Your task to perform on an android device: create a new album in the google photos Image 0: 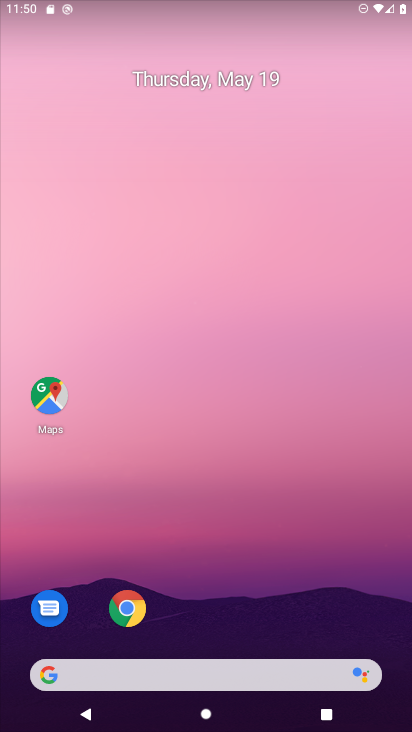
Step 0: press home button
Your task to perform on an android device: create a new album in the google photos Image 1: 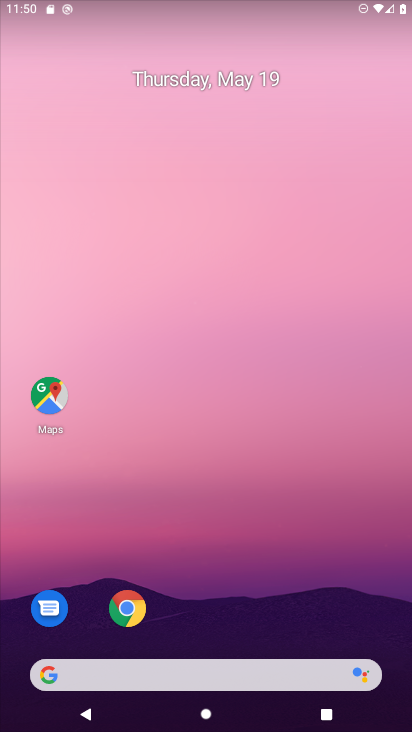
Step 1: drag from (289, 576) to (260, 38)
Your task to perform on an android device: create a new album in the google photos Image 2: 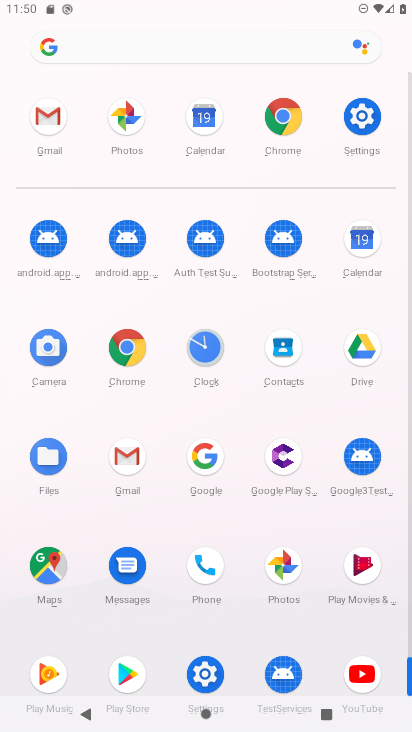
Step 2: click (288, 570)
Your task to perform on an android device: create a new album in the google photos Image 3: 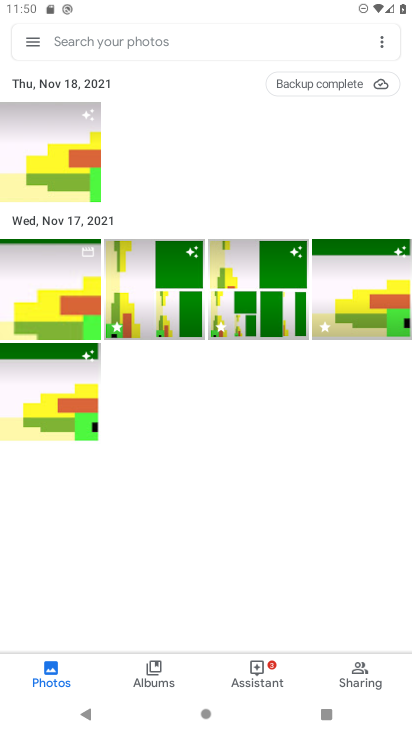
Step 3: click (66, 147)
Your task to perform on an android device: create a new album in the google photos Image 4: 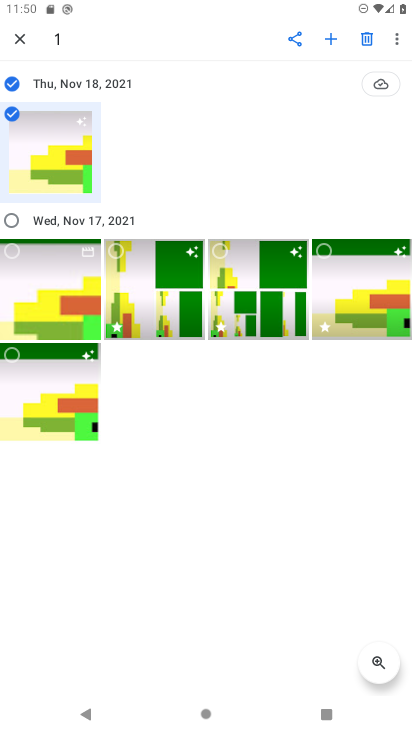
Step 4: click (90, 327)
Your task to perform on an android device: create a new album in the google photos Image 5: 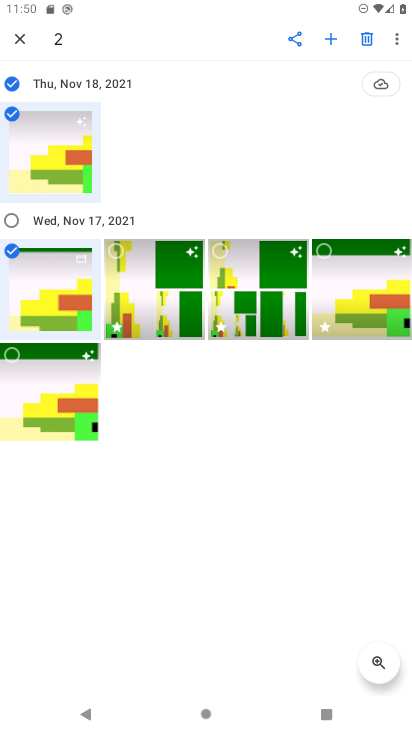
Step 5: click (190, 322)
Your task to perform on an android device: create a new album in the google photos Image 6: 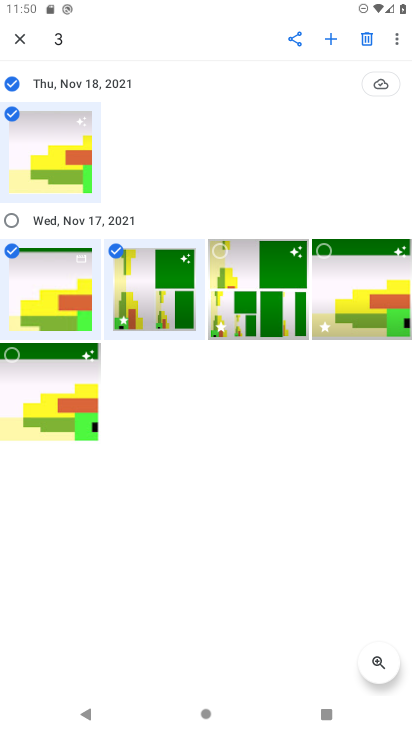
Step 6: click (320, 43)
Your task to perform on an android device: create a new album in the google photos Image 7: 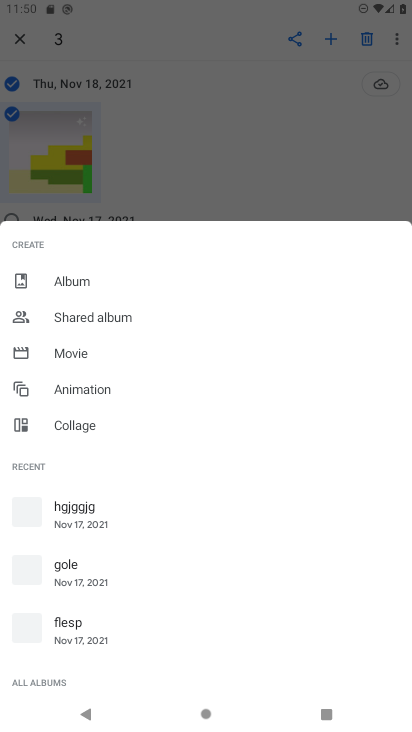
Step 7: click (112, 283)
Your task to perform on an android device: create a new album in the google photos Image 8: 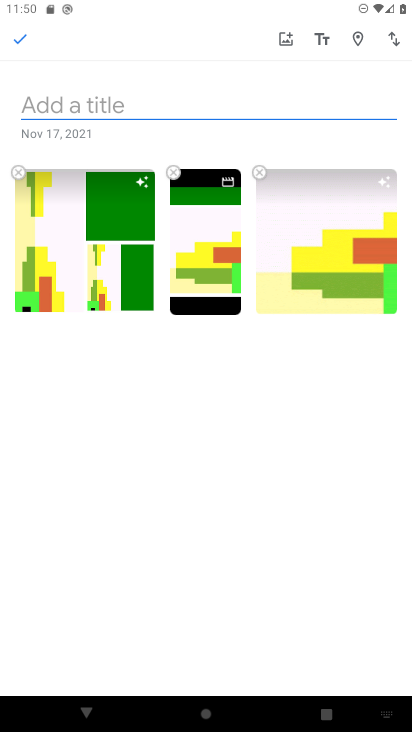
Step 8: type "fh"
Your task to perform on an android device: create a new album in the google photos Image 9: 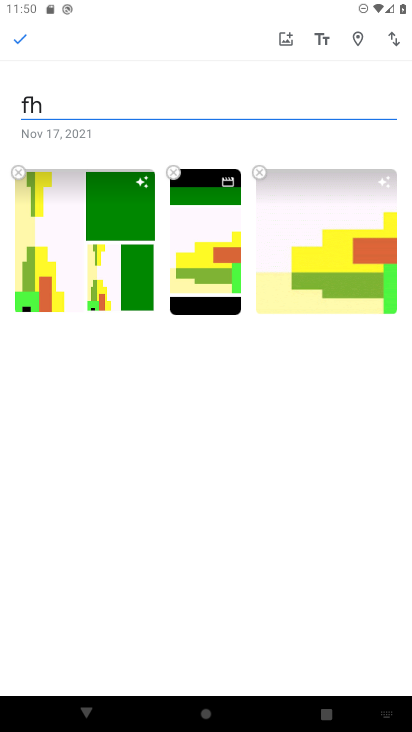
Step 9: click (20, 32)
Your task to perform on an android device: create a new album in the google photos Image 10: 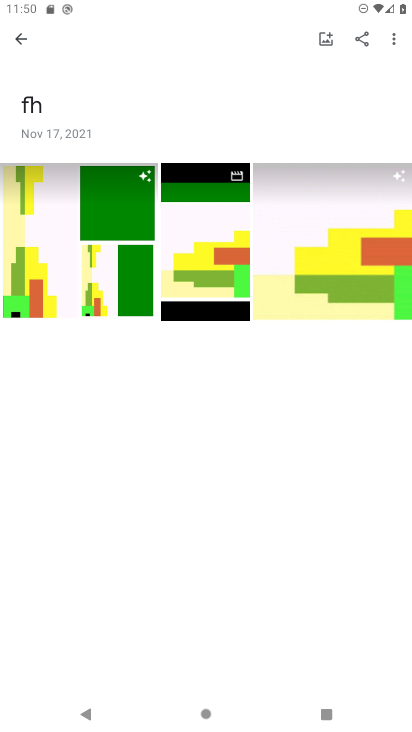
Step 10: task complete